Your task to perform on an android device: find which apps use the phone's location Image 0: 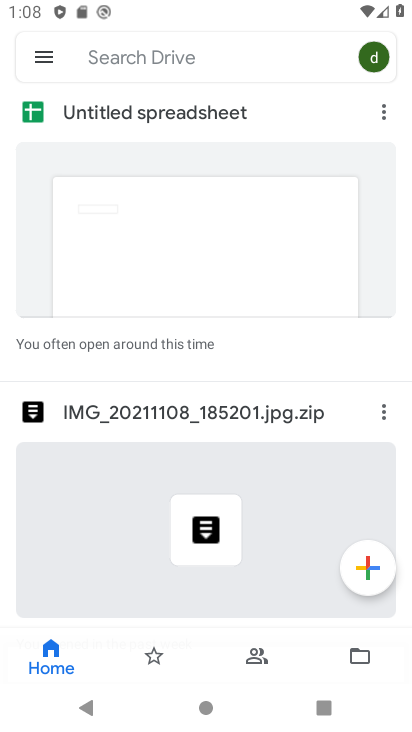
Step 0: press home button
Your task to perform on an android device: find which apps use the phone's location Image 1: 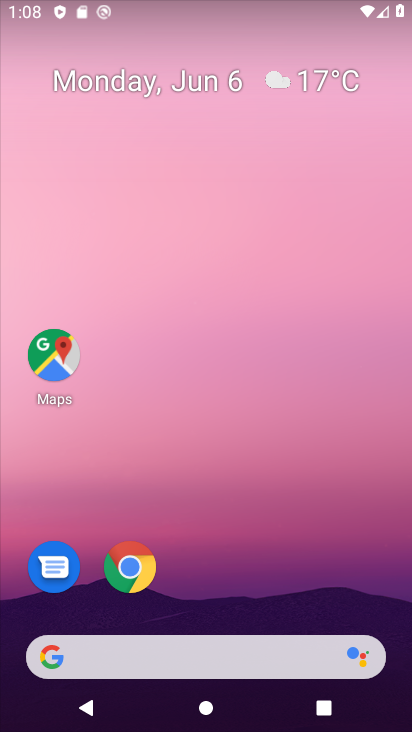
Step 1: drag from (256, 707) to (208, 0)
Your task to perform on an android device: find which apps use the phone's location Image 2: 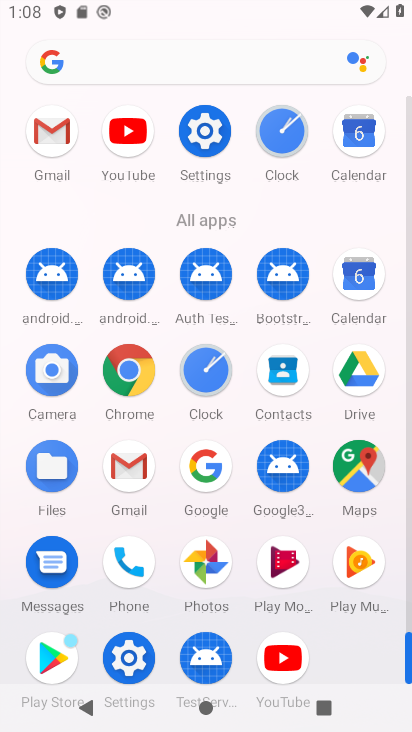
Step 2: click (201, 127)
Your task to perform on an android device: find which apps use the phone's location Image 3: 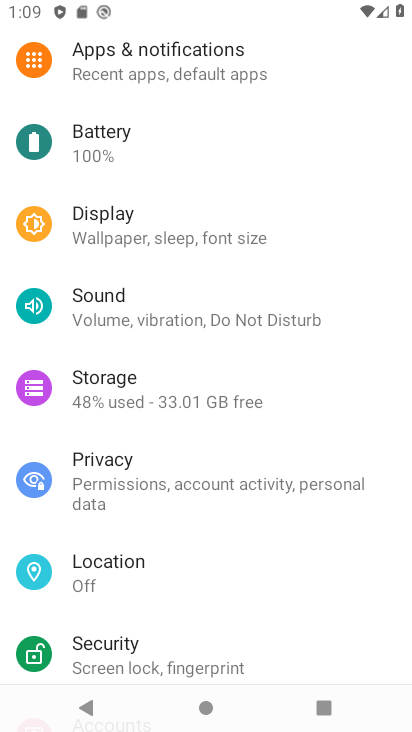
Step 3: click (127, 562)
Your task to perform on an android device: find which apps use the phone's location Image 4: 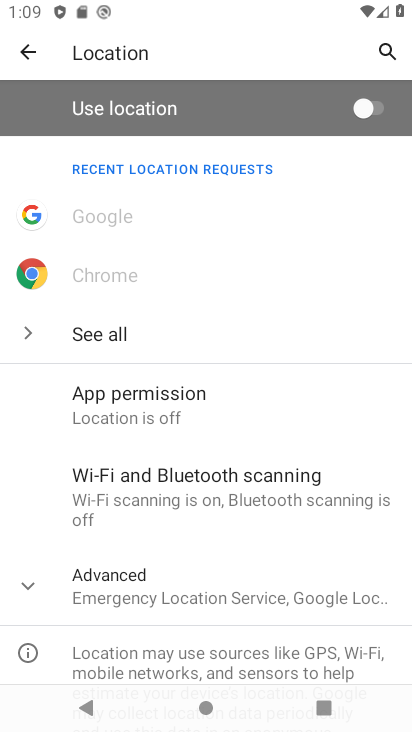
Step 4: click (199, 424)
Your task to perform on an android device: find which apps use the phone's location Image 5: 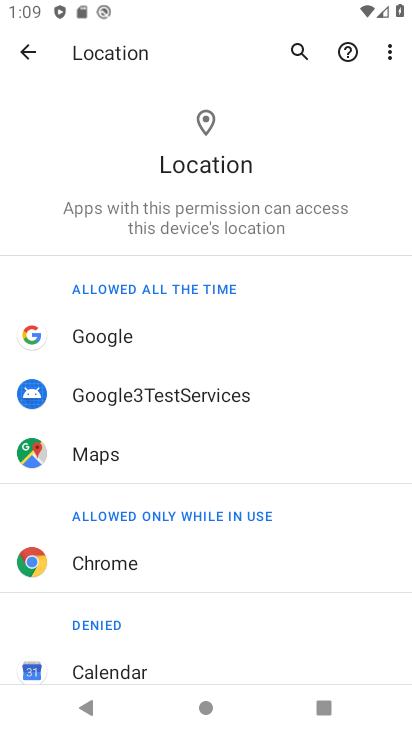
Step 5: task complete